Your task to perform on an android device: Open Google Image 0: 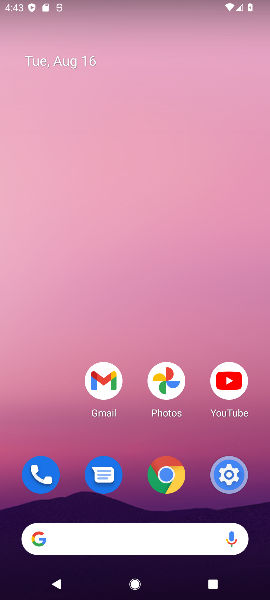
Step 0: drag from (203, 489) to (82, 23)
Your task to perform on an android device: Open Google Image 1: 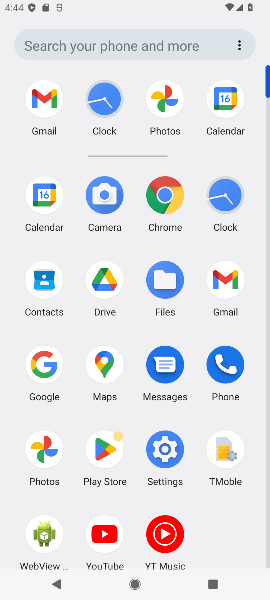
Step 1: click (36, 363)
Your task to perform on an android device: Open Google Image 2: 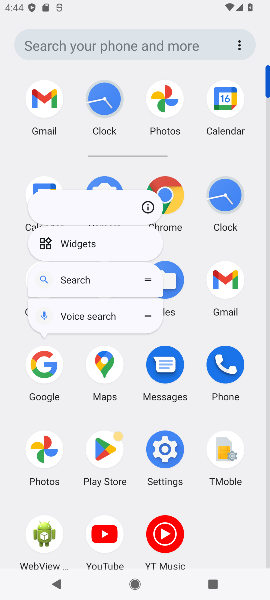
Step 2: click (36, 363)
Your task to perform on an android device: Open Google Image 3: 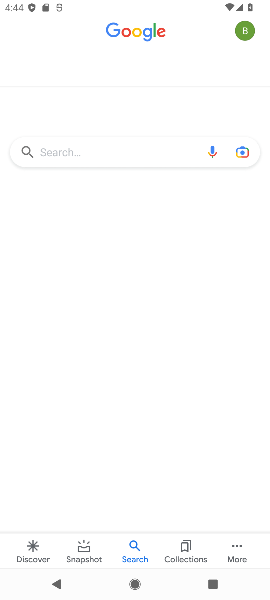
Step 3: task complete